Your task to perform on an android device: add a label to a message in the gmail app Image 0: 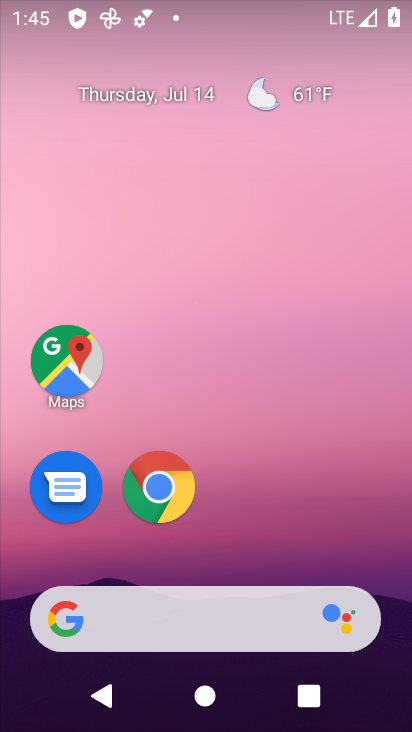
Step 0: drag from (328, 528) to (315, 145)
Your task to perform on an android device: add a label to a message in the gmail app Image 1: 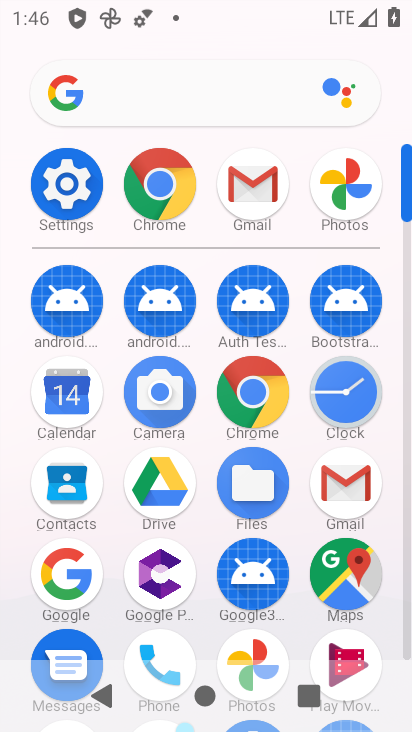
Step 1: drag from (293, 452) to (293, 273)
Your task to perform on an android device: add a label to a message in the gmail app Image 2: 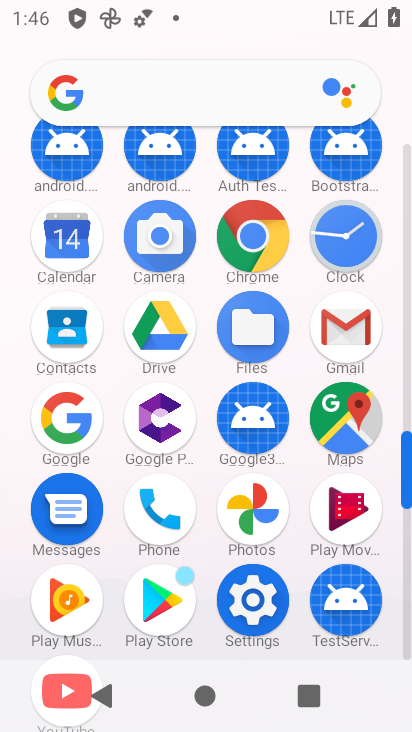
Step 2: click (350, 315)
Your task to perform on an android device: add a label to a message in the gmail app Image 3: 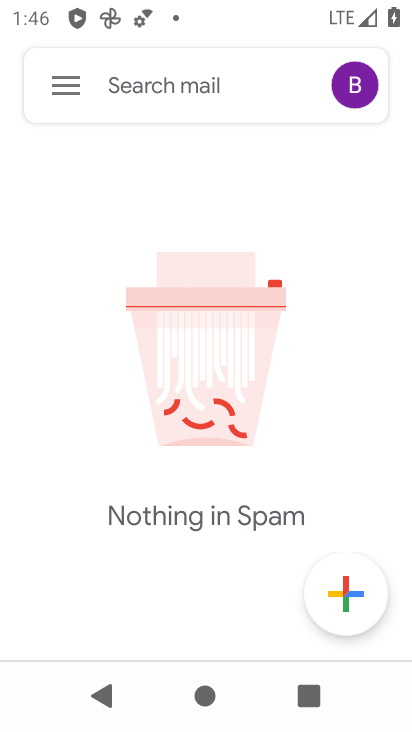
Step 3: click (70, 86)
Your task to perform on an android device: add a label to a message in the gmail app Image 4: 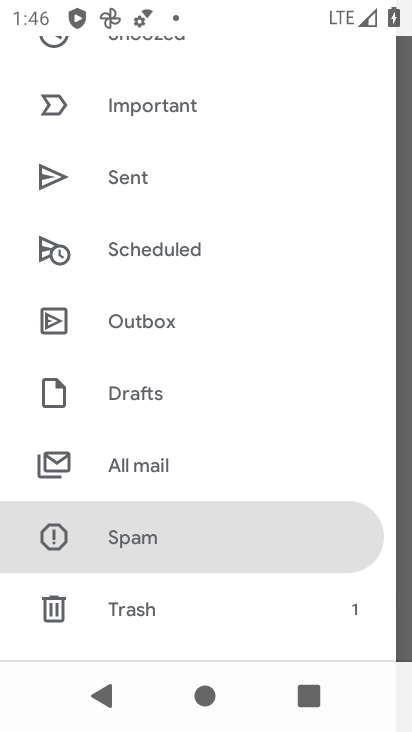
Step 4: drag from (303, 213) to (326, 372)
Your task to perform on an android device: add a label to a message in the gmail app Image 5: 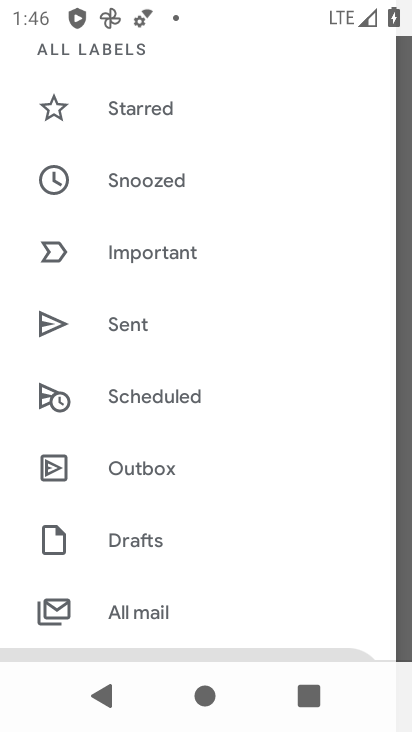
Step 5: drag from (344, 240) to (356, 345)
Your task to perform on an android device: add a label to a message in the gmail app Image 6: 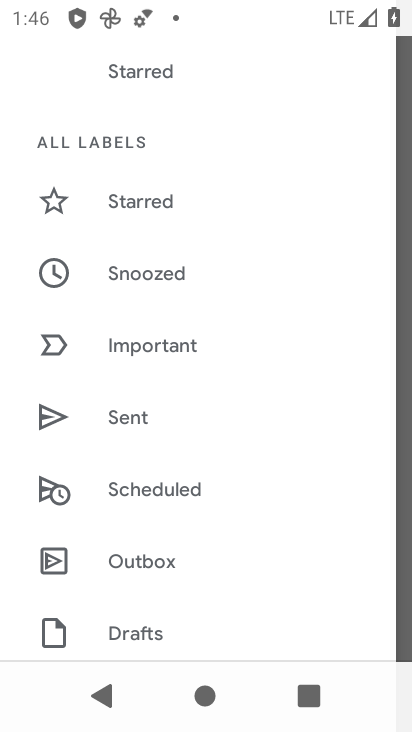
Step 6: drag from (325, 183) to (320, 319)
Your task to perform on an android device: add a label to a message in the gmail app Image 7: 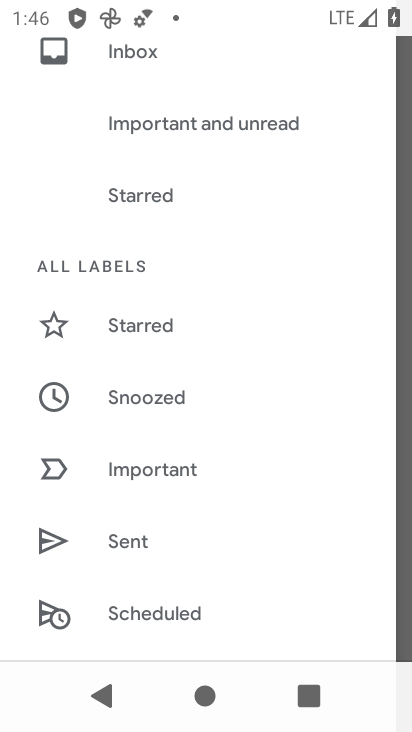
Step 7: drag from (313, 233) to (311, 385)
Your task to perform on an android device: add a label to a message in the gmail app Image 8: 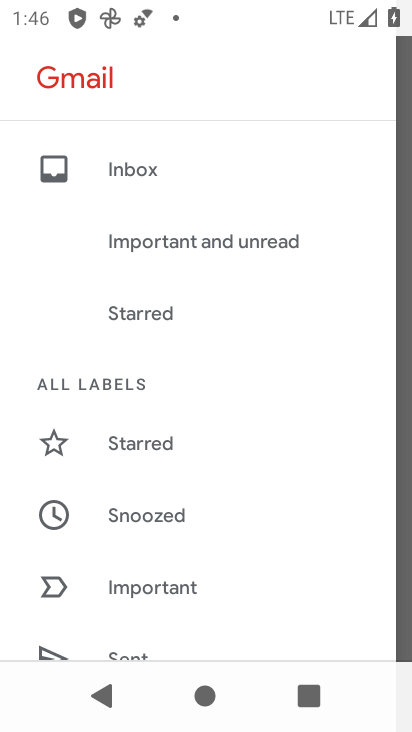
Step 8: click (201, 187)
Your task to perform on an android device: add a label to a message in the gmail app Image 9: 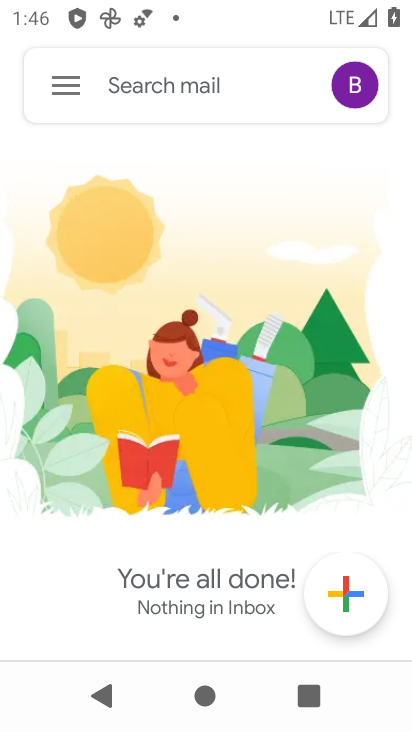
Step 9: task complete